Your task to perform on an android device: change notification settings in the gmail app Image 0: 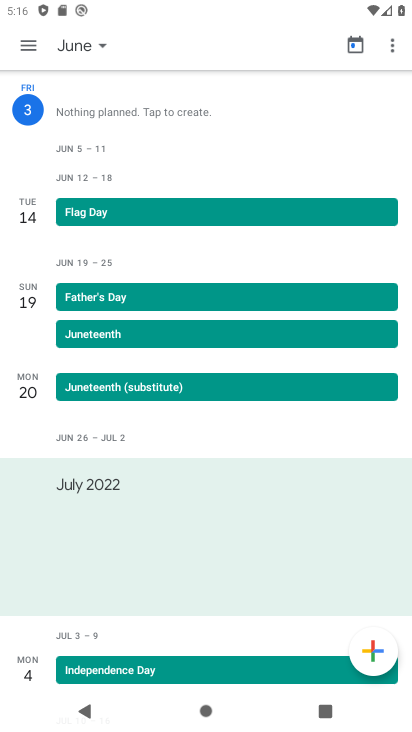
Step 0: press home button
Your task to perform on an android device: change notification settings in the gmail app Image 1: 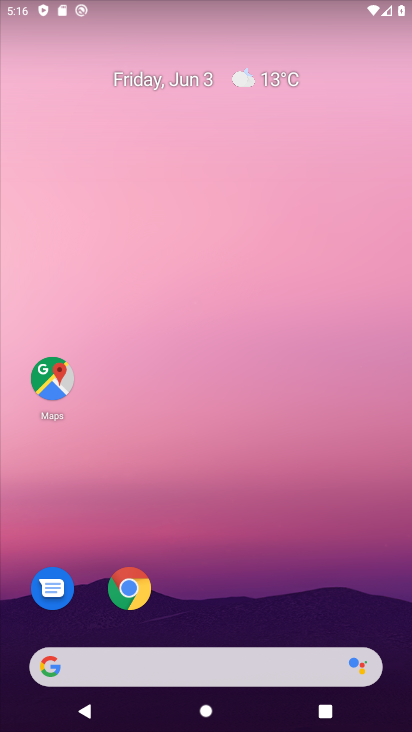
Step 1: drag from (16, 580) to (269, 107)
Your task to perform on an android device: change notification settings in the gmail app Image 2: 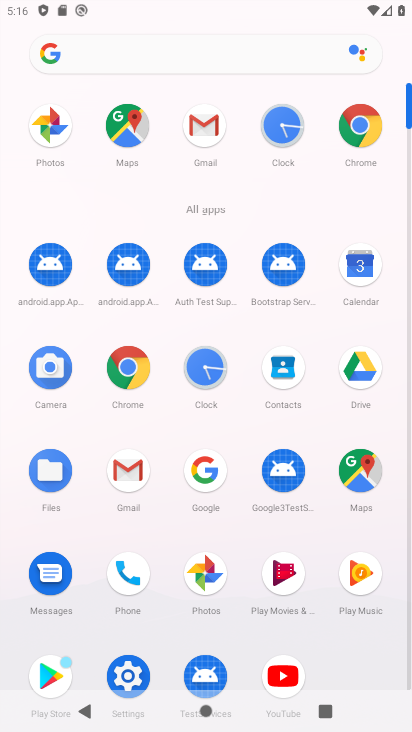
Step 2: click (145, 670)
Your task to perform on an android device: change notification settings in the gmail app Image 3: 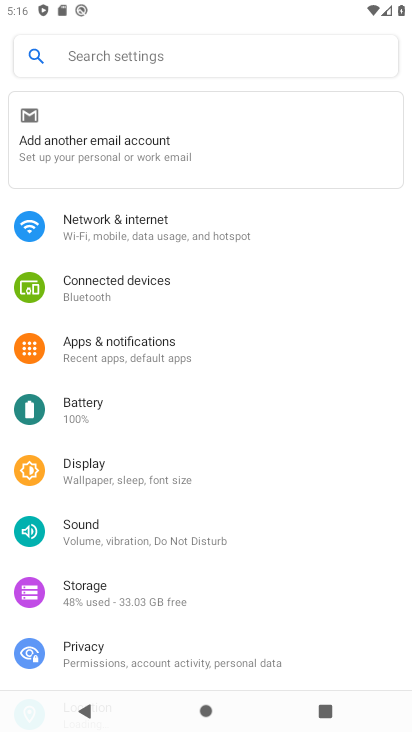
Step 3: click (140, 345)
Your task to perform on an android device: change notification settings in the gmail app Image 4: 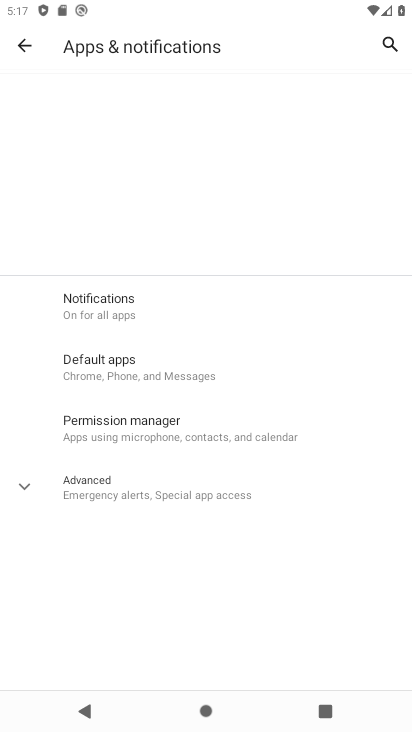
Step 4: click (101, 305)
Your task to perform on an android device: change notification settings in the gmail app Image 5: 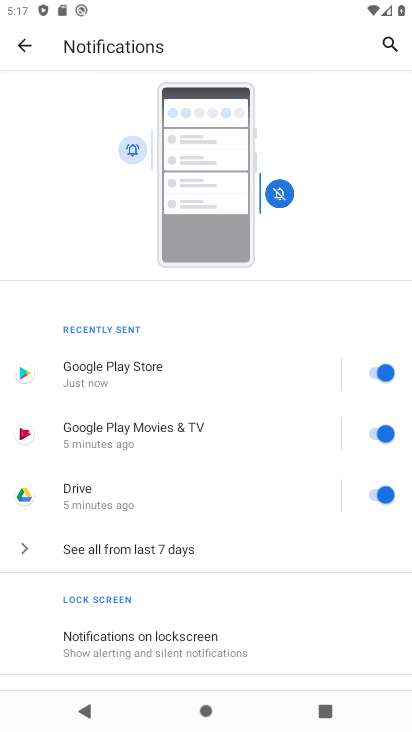
Step 5: press home button
Your task to perform on an android device: change notification settings in the gmail app Image 6: 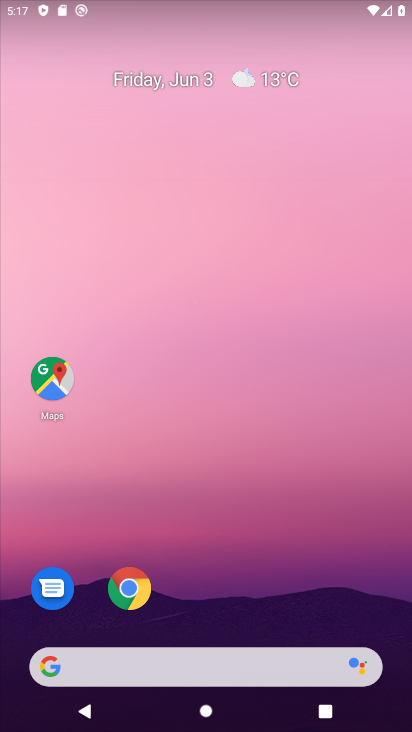
Step 6: drag from (28, 467) to (233, 92)
Your task to perform on an android device: change notification settings in the gmail app Image 7: 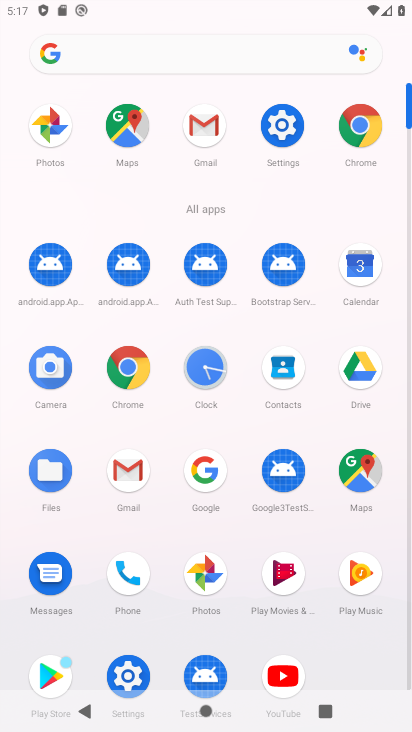
Step 7: click (209, 133)
Your task to perform on an android device: change notification settings in the gmail app Image 8: 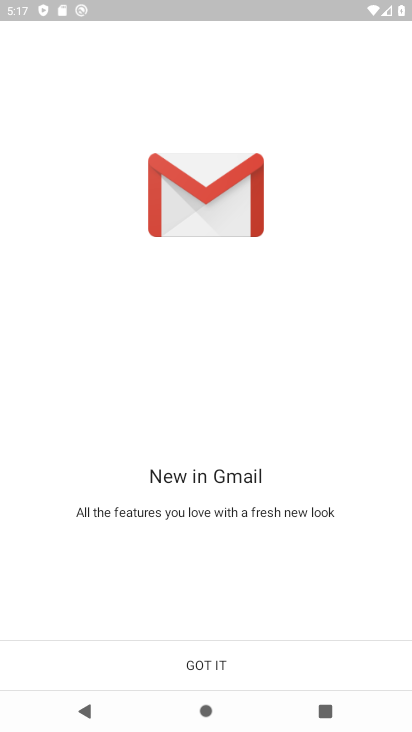
Step 8: click (210, 670)
Your task to perform on an android device: change notification settings in the gmail app Image 9: 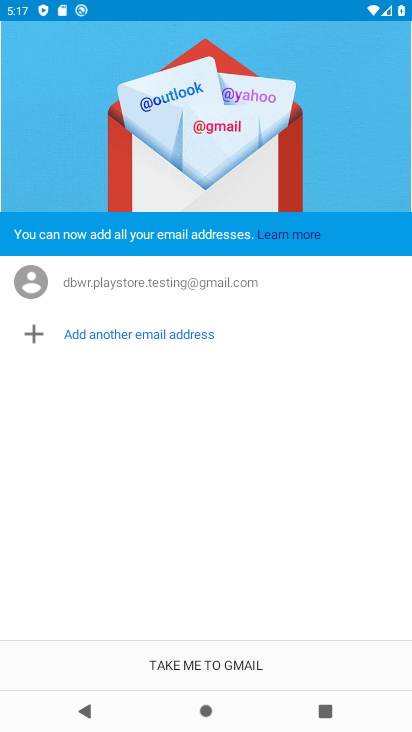
Step 9: click (162, 666)
Your task to perform on an android device: change notification settings in the gmail app Image 10: 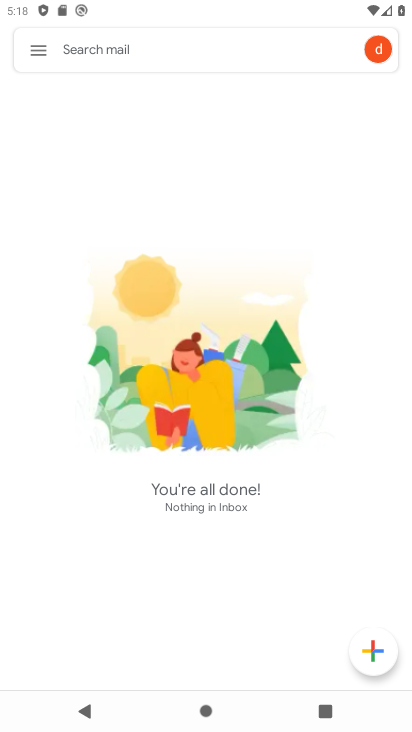
Step 10: task complete